Your task to perform on an android device: Add "macbook pro" to the cart on walmart Image 0: 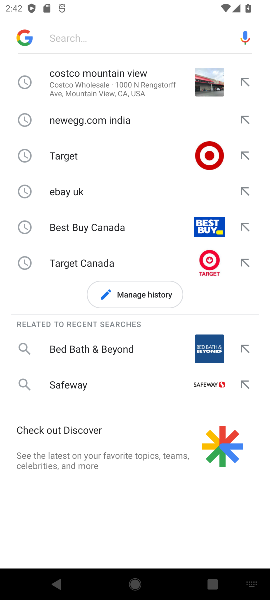
Step 0: click (87, 38)
Your task to perform on an android device: Add "macbook pro" to the cart on walmart Image 1: 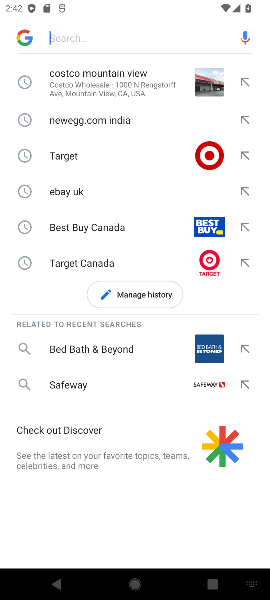
Step 1: type "walmart "
Your task to perform on an android device: Add "macbook pro" to the cart on walmart Image 2: 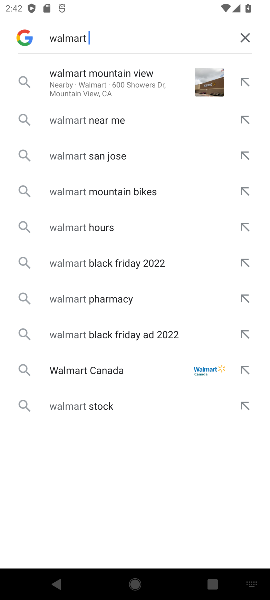
Step 2: click (89, 77)
Your task to perform on an android device: Add "macbook pro" to the cart on walmart Image 3: 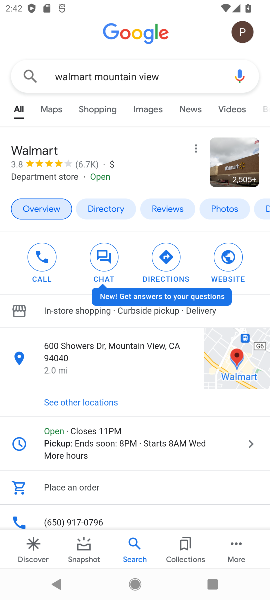
Step 3: drag from (76, 488) to (116, 248)
Your task to perform on an android device: Add "macbook pro" to the cart on walmart Image 4: 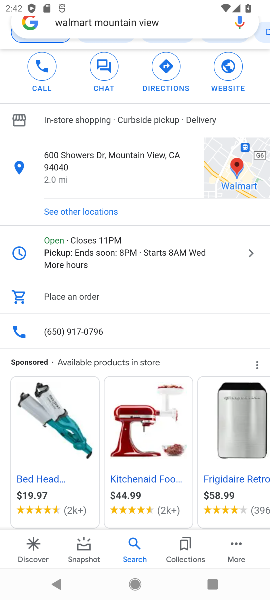
Step 4: drag from (81, 455) to (115, 197)
Your task to perform on an android device: Add "macbook pro" to the cart on walmart Image 5: 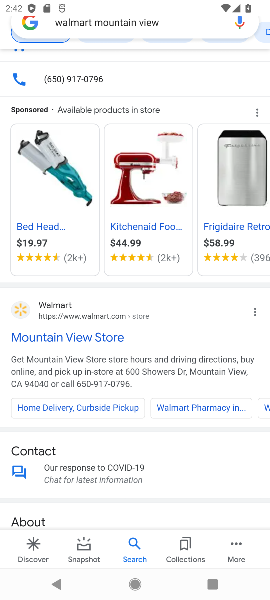
Step 5: click (21, 307)
Your task to perform on an android device: Add "macbook pro" to the cart on walmart Image 6: 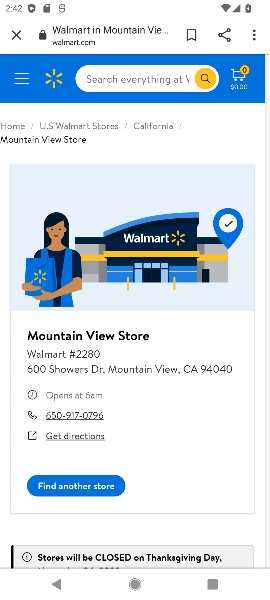
Step 6: click (102, 70)
Your task to perform on an android device: Add "macbook pro" to the cart on walmart Image 7: 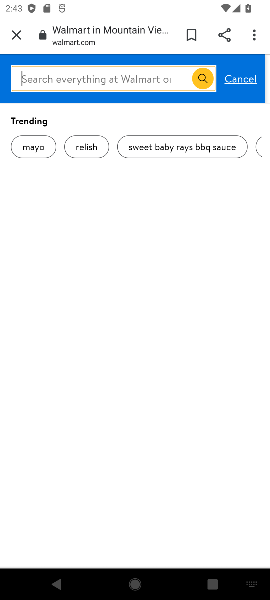
Step 7: click (126, 74)
Your task to perform on an android device: Add "macbook pro" to the cart on walmart Image 8: 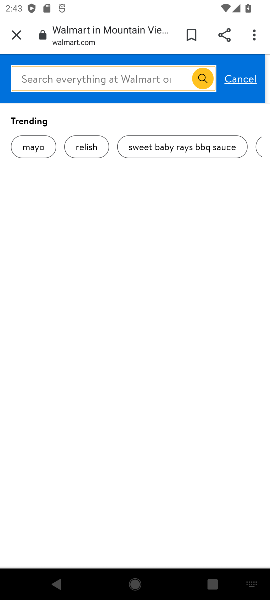
Step 8: type "macbook pro "
Your task to perform on an android device: Add "macbook pro" to the cart on walmart Image 9: 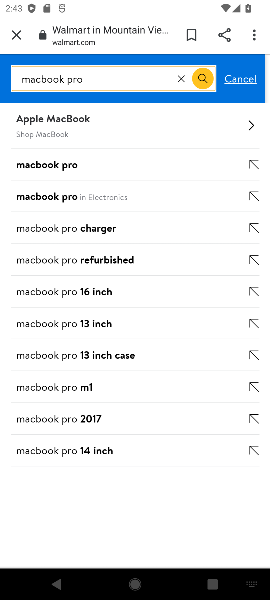
Step 9: click (64, 163)
Your task to perform on an android device: Add "macbook pro" to the cart on walmart Image 10: 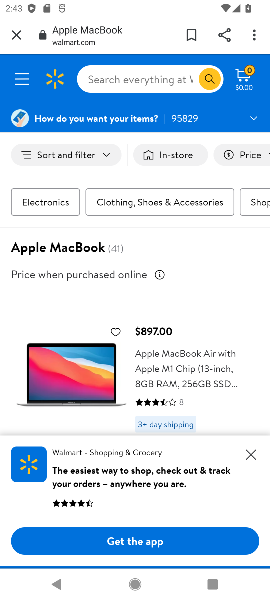
Step 10: click (247, 452)
Your task to perform on an android device: Add "macbook pro" to the cart on walmart Image 11: 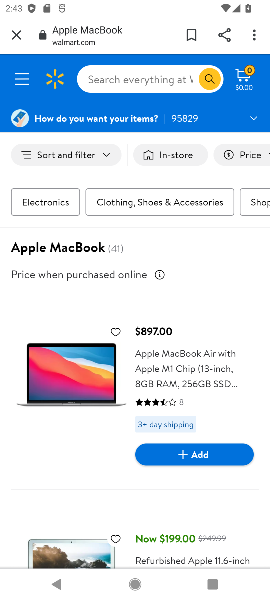
Step 11: click (205, 452)
Your task to perform on an android device: Add "macbook pro" to the cart on walmart Image 12: 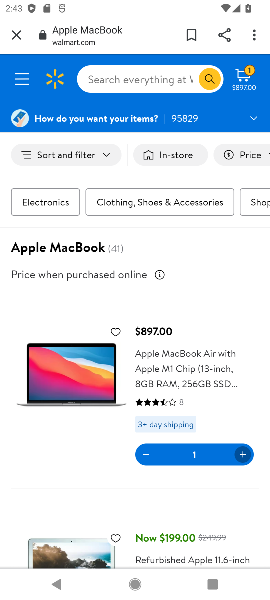
Step 12: task complete